Your task to perform on an android device: Open Youtube and go to the subscriptions tab Image 0: 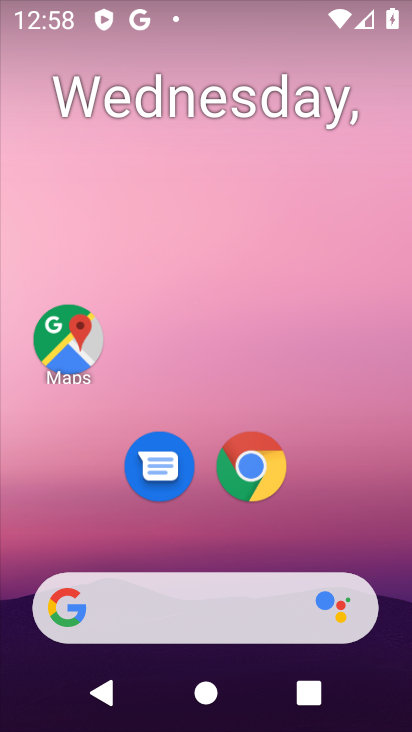
Step 0: drag from (269, 477) to (149, 70)
Your task to perform on an android device: Open Youtube and go to the subscriptions tab Image 1: 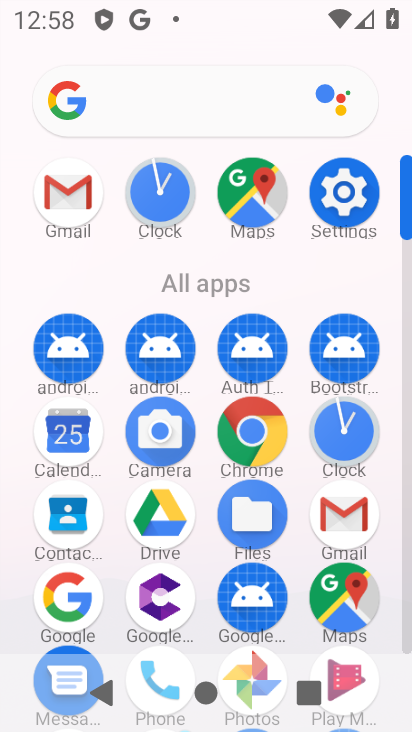
Step 1: drag from (242, 662) to (178, 212)
Your task to perform on an android device: Open Youtube and go to the subscriptions tab Image 2: 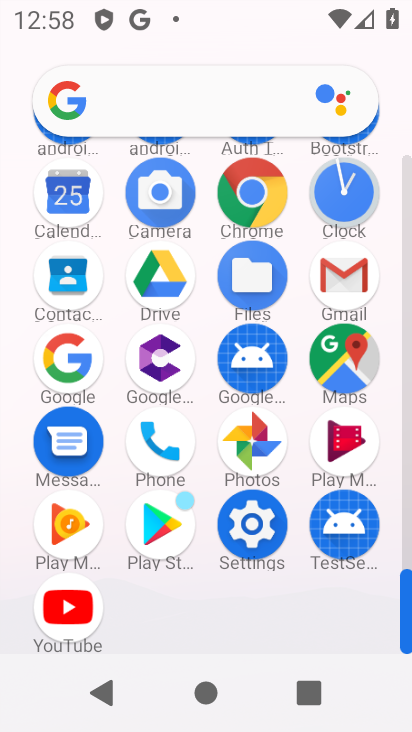
Step 2: click (51, 611)
Your task to perform on an android device: Open Youtube and go to the subscriptions tab Image 3: 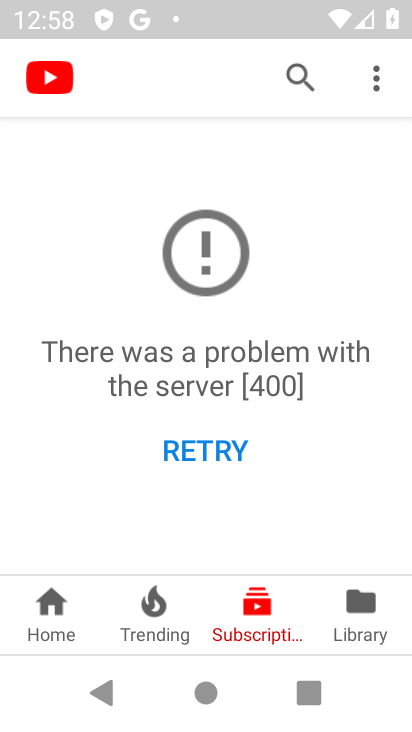
Step 3: click (208, 450)
Your task to perform on an android device: Open Youtube and go to the subscriptions tab Image 4: 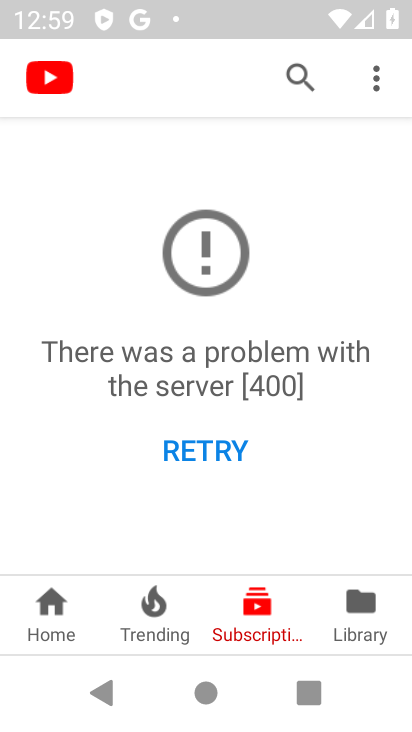
Step 4: task complete